Your task to perform on an android device: turn on wifi Image 0: 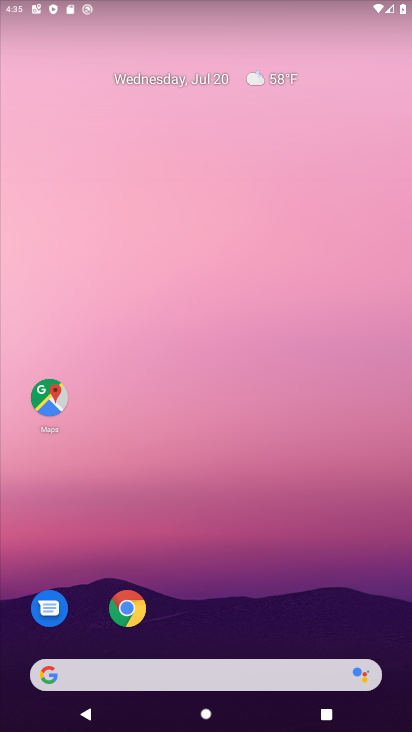
Step 0: drag from (234, 649) to (84, 63)
Your task to perform on an android device: turn on wifi Image 1: 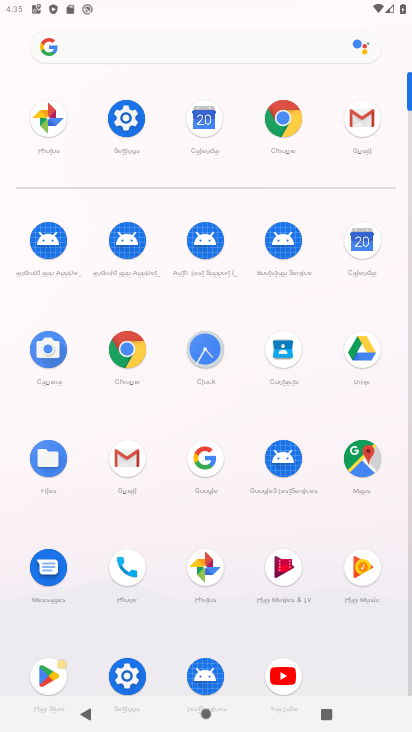
Step 1: click (113, 103)
Your task to perform on an android device: turn on wifi Image 2: 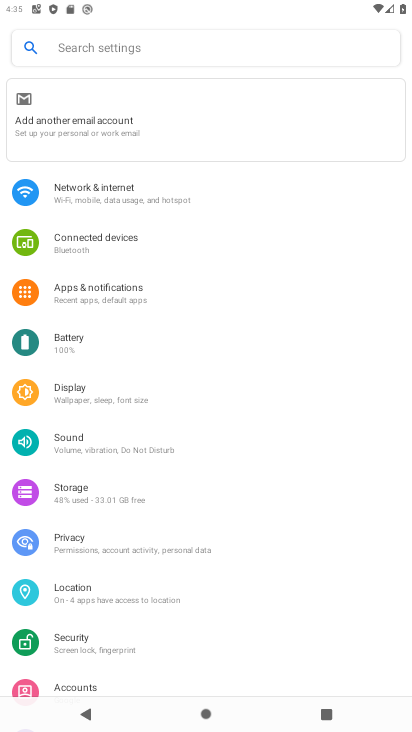
Step 2: click (104, 182)
Your task to perform on an android device: turn on wifi Image 3: 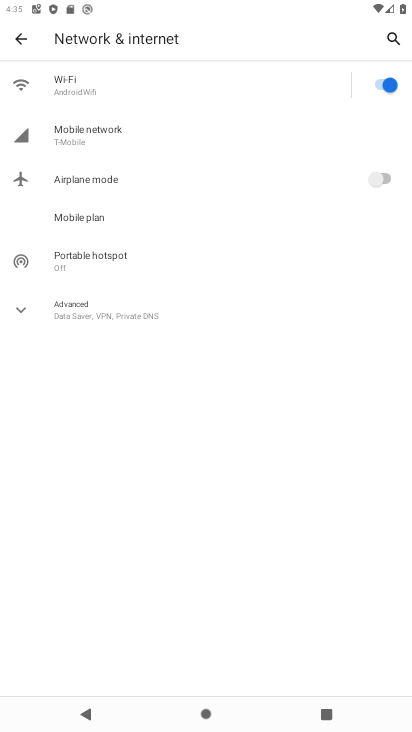
Step 3: click (263, 84)
Your task to perform on an android device: turn on wifi Image 4: 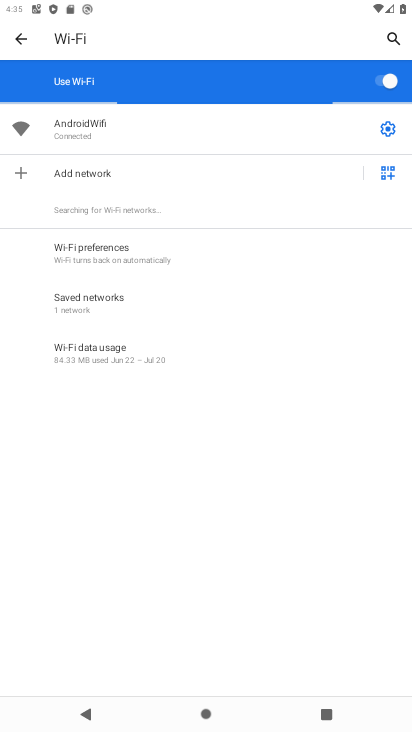
Step 4: task complete